Your task to perform on an android device: Go to internet settings Image 0: 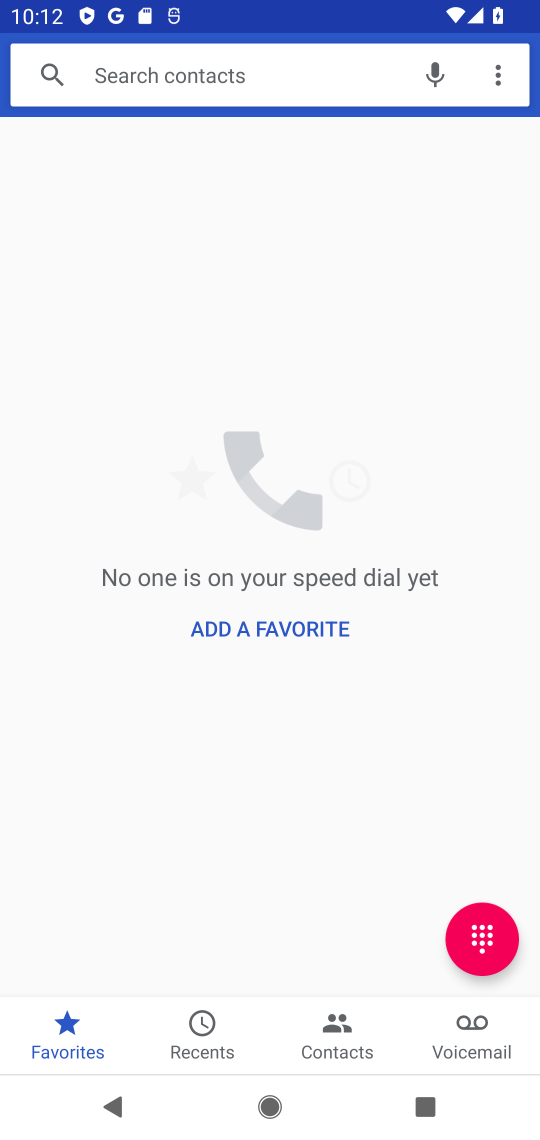
Step 0: press home button
Your task to perform on an android device: Go to internet settings Image 1: 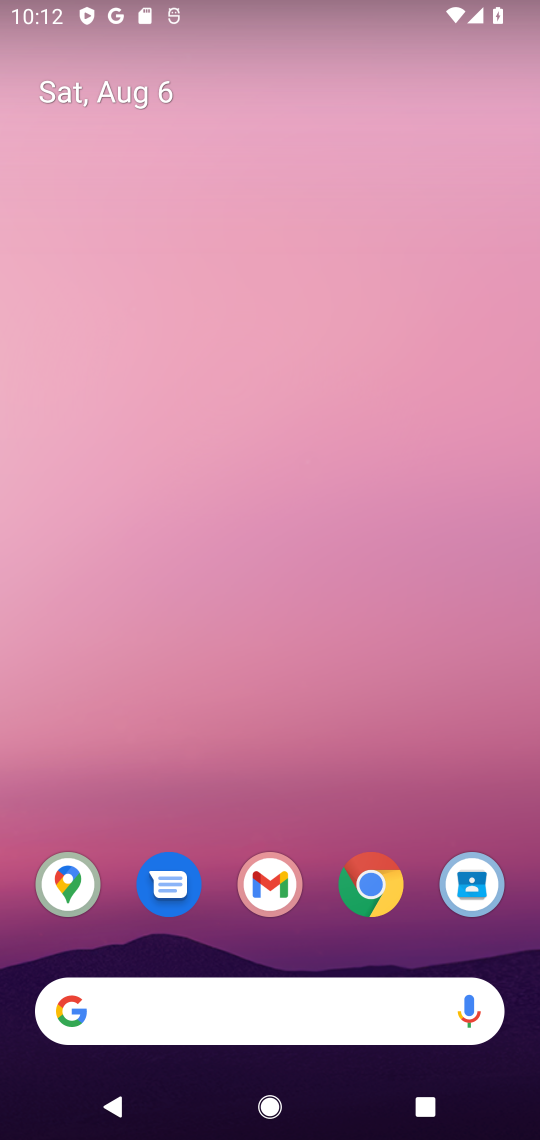
Step 1: drag from (428, 948) to (391, 115)
Your task to perform on an android device: Go to internet settings Image 2: 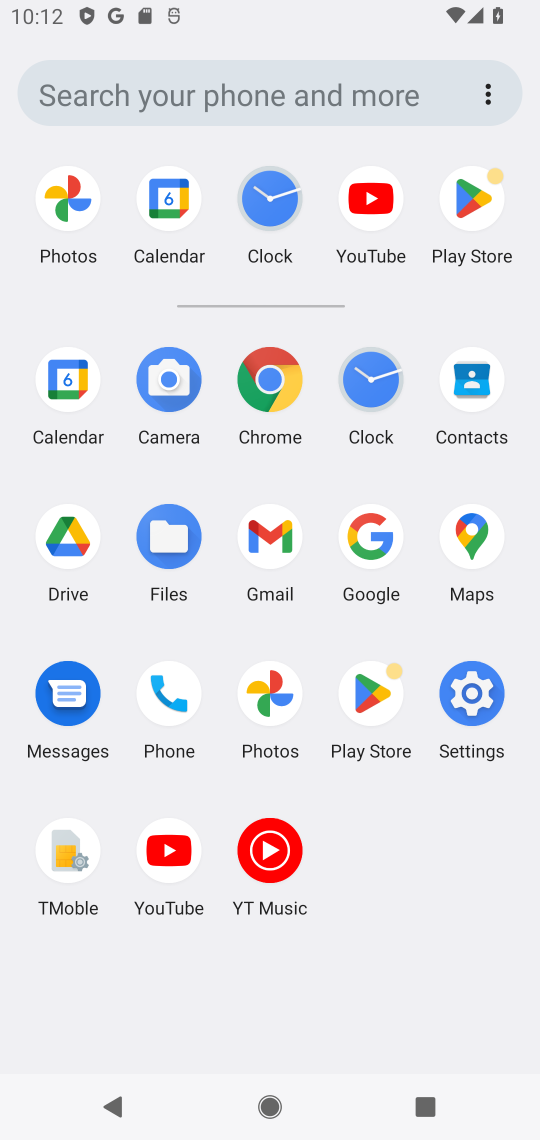
Step 2: click (475, 691)
Your task to perform on an android device: Go to internet settings Image 3: 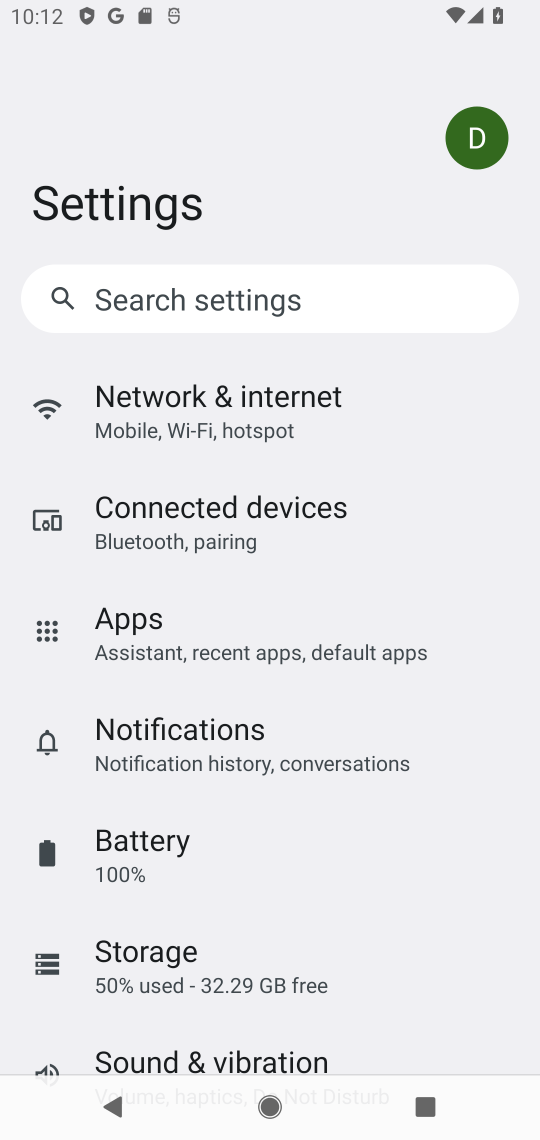
Step 3: click (168, 398)
Your task to perform on an android device: Go to internet settings Image 4: 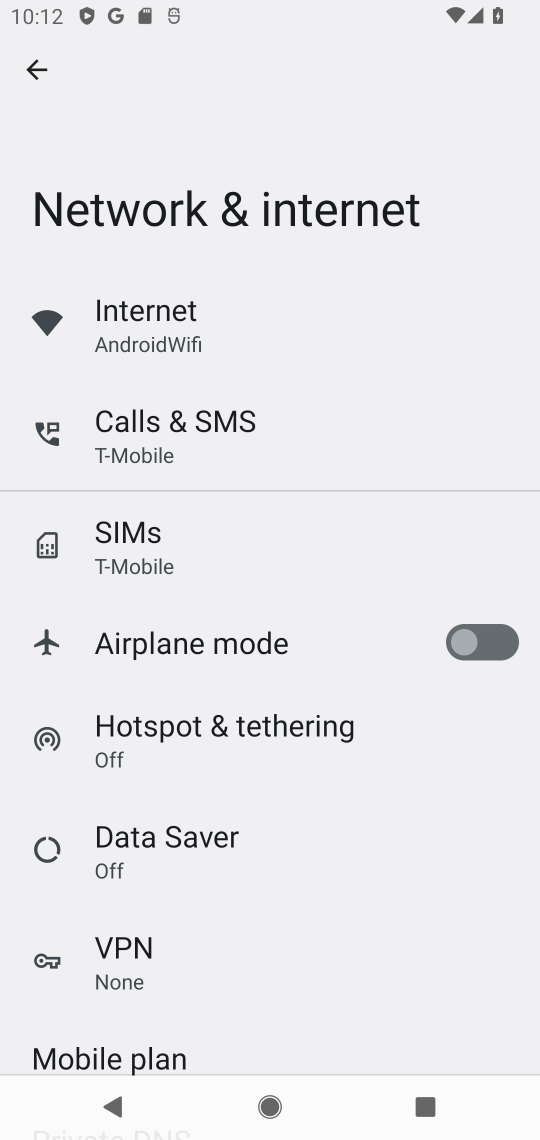
Step 4: click (146, 323)
Your task to perform on an android device: Go to internet settings Image 5: 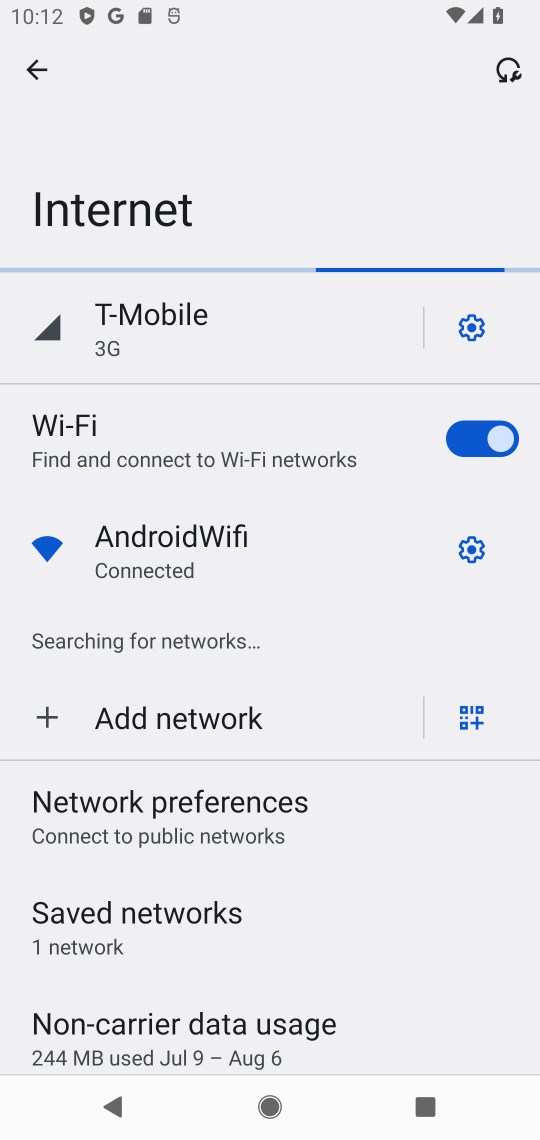
Step 5: task complete